Your task to perform on an android device: Add "alienware aurora" to the cart on newegg.com, then select checkout. Image 0: 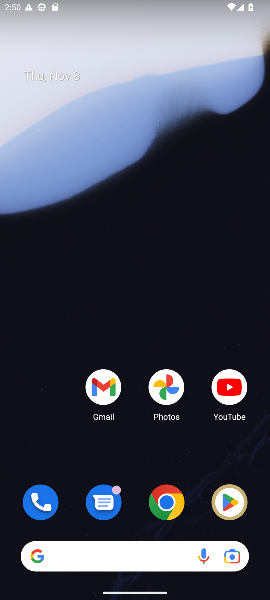
Step 0: drag from (132, 537) to (145, 98)
Your task to perform on an android device: Add "alienware aurora" to the cart on newegg.com, then select checkout. Image 1: 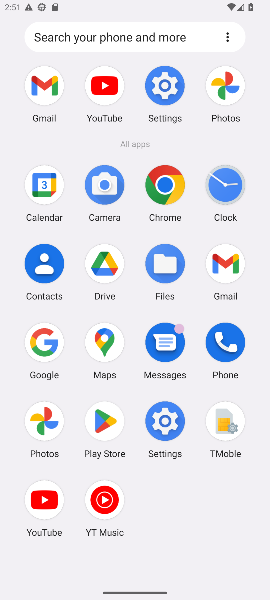
Step 1: click (43, 344)
Your task to perform on an android device: Add "alienware aurora" to the cart on newegg.com, then select checkout. Image 2: 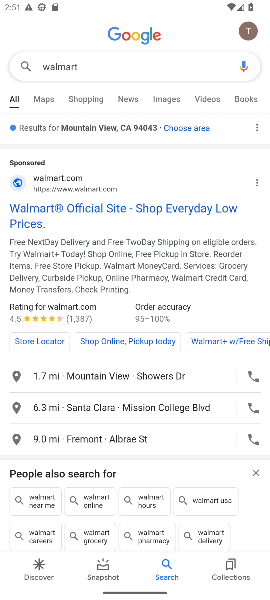
Step 2: click (185, 68)
Your task to perform on an android device: Add "alienware aurora" to the cart on newegg.com, then select checkout. Image 3: 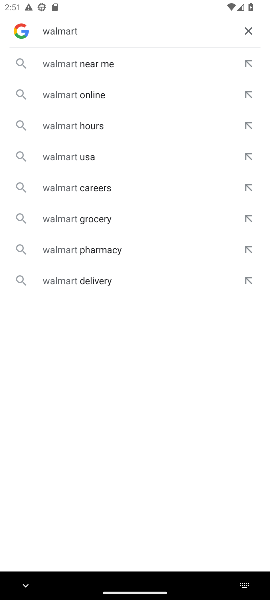
Step 3: click (255, 33)
Your task to perform on an android device: Add "alienware aurora" to the cart on newegg.com, then select checkout. Image 4: 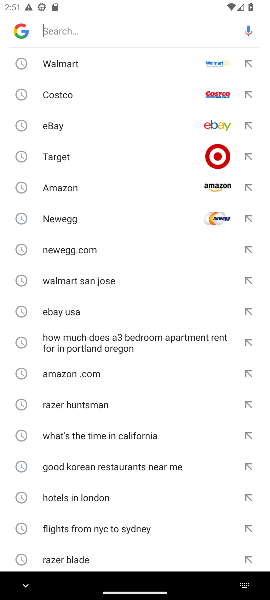
Step 4: type "newegg.com"
Your task to perform on an android device: Add "alienware aurora" to the cart on newegg.com, then select checkout. Image 5: 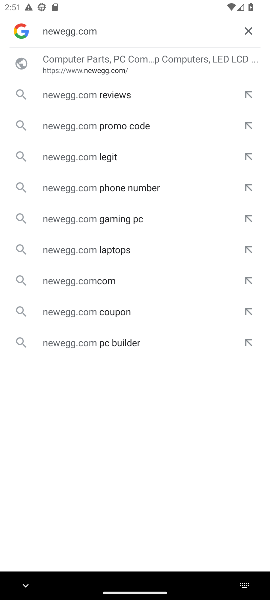
Step 5: click (166, 59)
Your task to perform on an android device: Add "alienware aurora" to the cart on newegg.com, then select checkout. Image 6: 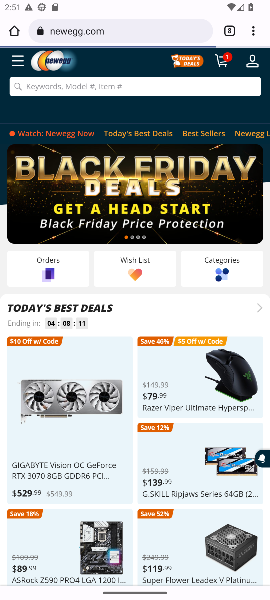
Step 6: click (166, 59)
Your task to perform on an android device: Add "alienware aurora" to the cart on newegg.com, then select checkout. Image 7: 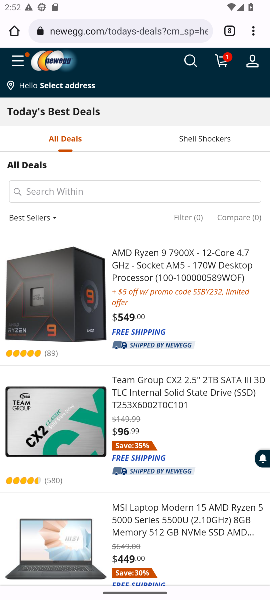
Step 7: click (128, 197)
Your task to perform on an android device: Add "alienware aurora" to the cart on newegg.com, then select checkout. Image 8: 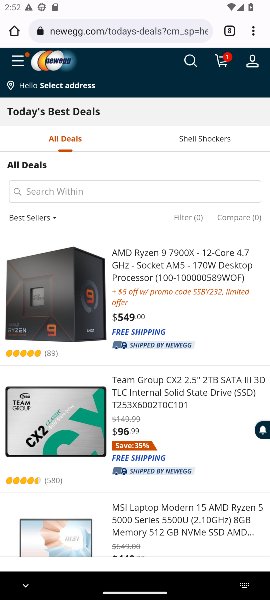
Step 8: type "alienware aurora"
Your task to perform on an android device: Add "alienware aurora" to the cart on newegg.com, then select checkout. Image 9: 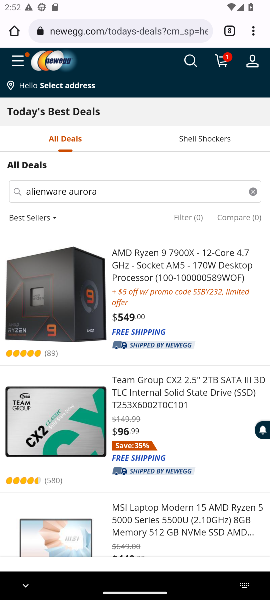
Step 9: click (195, 284)
Your task to perform on an android device: Add "alienware aurora" to the cart on newegg.com, then select checkout. Image 10: 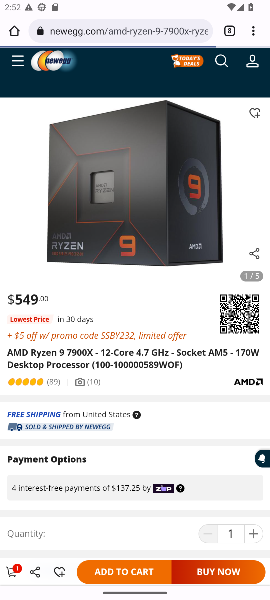
Step 10: drag from (187, 401) to (183, 223)
Your task to perform on an android device: Add "alienware aurora" to the cart on newegg.com, then select checkout. Image 11: 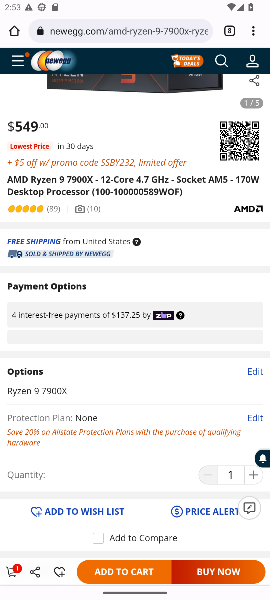
Step 11: click (122, 574)
Your task to perform on an android device: Add "alienware aurora" to the cart on newegg.com, then select checkout. Image 12: 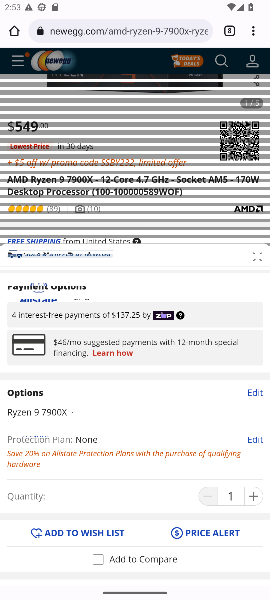
Step 12: click (139, 466)
Your task to perform on an android device: Add "alienware aurora" to the cart on newegg.com, then select checkout. Image 13: 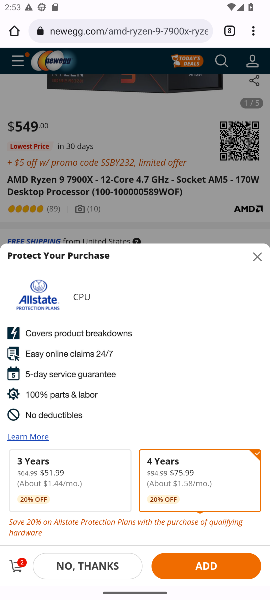
Step 13: drag from (139, 466) to (158, 293)
Your task to perform on an android device: Add "alienware aurora" to the cart on newegg.com, then select checkout. Image 14: 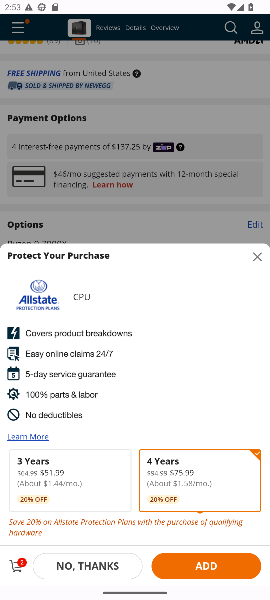
Step 14: click (100, 561)
Your task to perform on an android device: Add "alienware aurora" to the cart on newegg.com, then select checkout. Image 15: 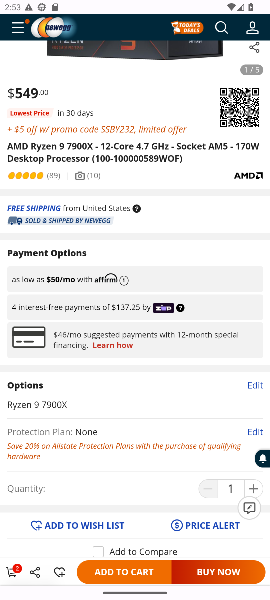
Step 15: click (16, 571)
Your task to perform on an android device: Add "alienware aurora" to the cart on newegg.com, then select checkout. Image 16: 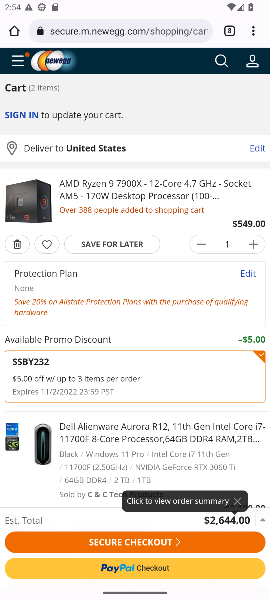
Step 16: task complete